Your task to perform on an android device: turn on improve location accuracy Image 0: 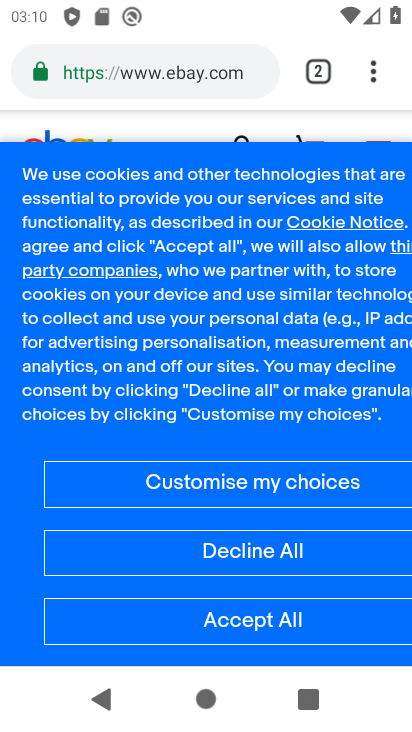
Step 0: press home button
Your task to perform on an android device: turn on improve location accuracy Image 1: 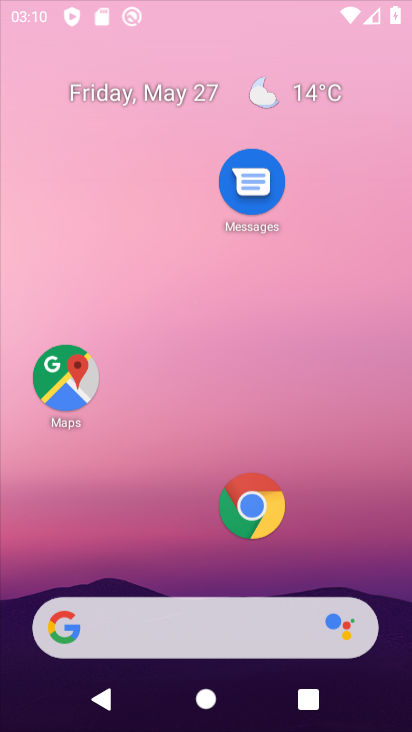
Step 1: drag from (180, 606) to (189, 175)
Your task to perform on an android device: turn on improve location accuracy Image 2: 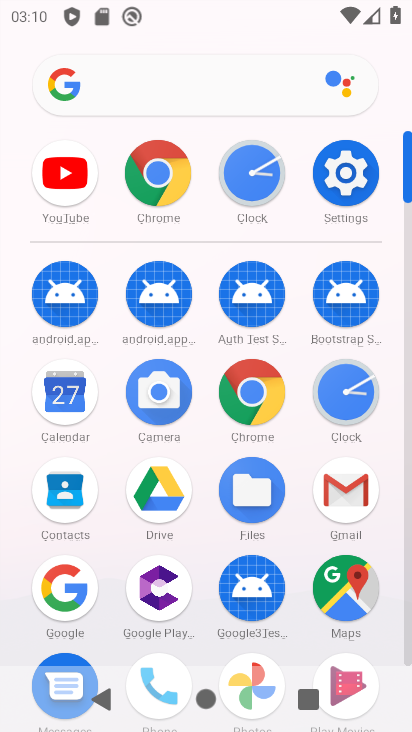
Step 2: click (356, 163)
Your task to perform on an android device: turn on improve location accuracy Image 3: 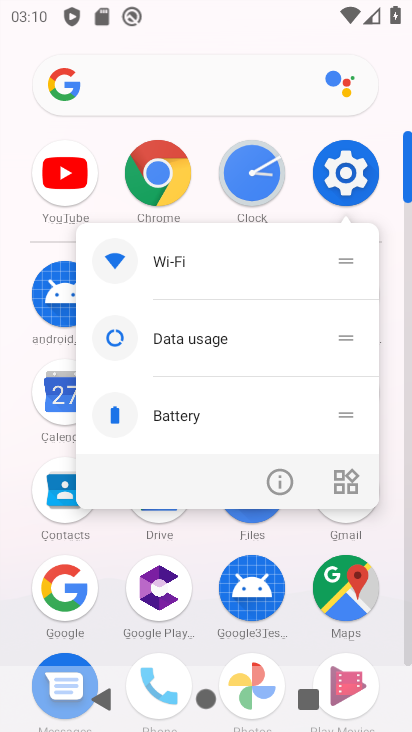
Step 3: click (280, 478)
Your task to perform on an android device: turn on improve location accuracy Image 4: 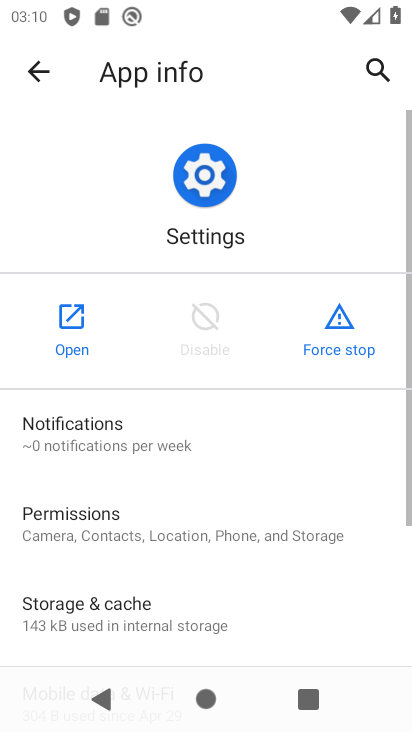
Step 4: click (101, 324)
Your task to perform on an android device: turn on improve location accuracy Image 5: 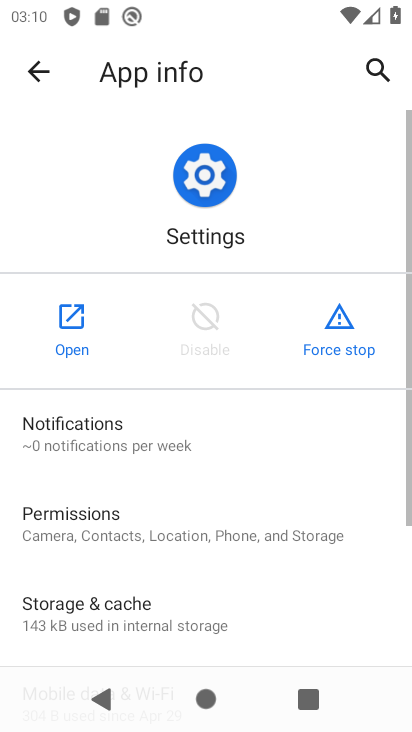
Step 5: click (95, 324)
Your task to perform on an android device: turn on improve location accuracy Image 6: 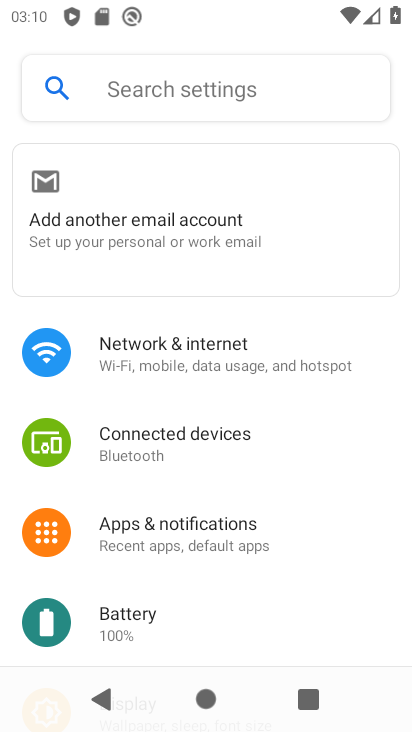
Step 6: drag from (247, 573) to (257, 249)
Your task to perform on an android device: turn on improve location accuracy Image 7: 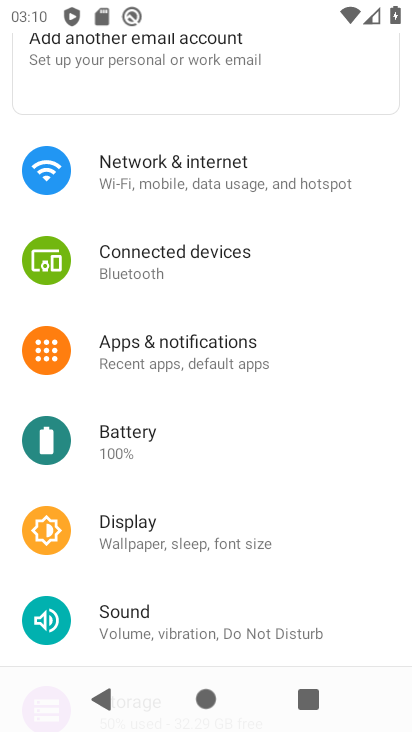
Step 7: drag from (199, 552) to (190, 220)
Your task to perform on an android device: turn on improve location accuracy Image 8: 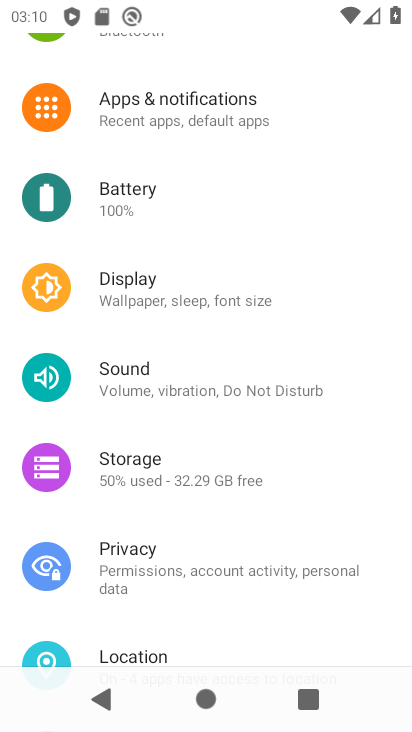
Step 8: click (146, 632)
Your task to perform on an android device: turn on improve location accuracy Image 9: 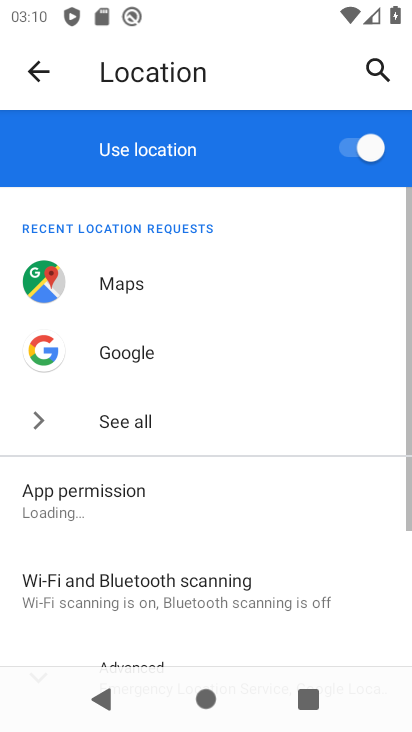
Step 9: drag from (195, 467) to (216, 281)
Your task to perform on an android device: turn on improve location accuracy Image 10: 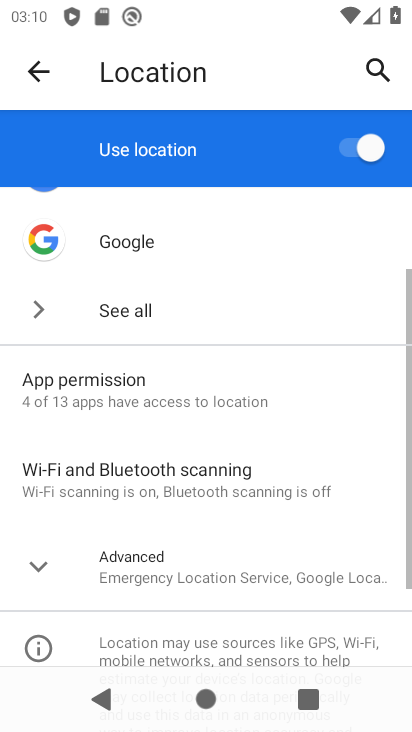
Step 10: click (118, 550)
Your task to perform on an android device: turn on improve location accuracy Image 11: 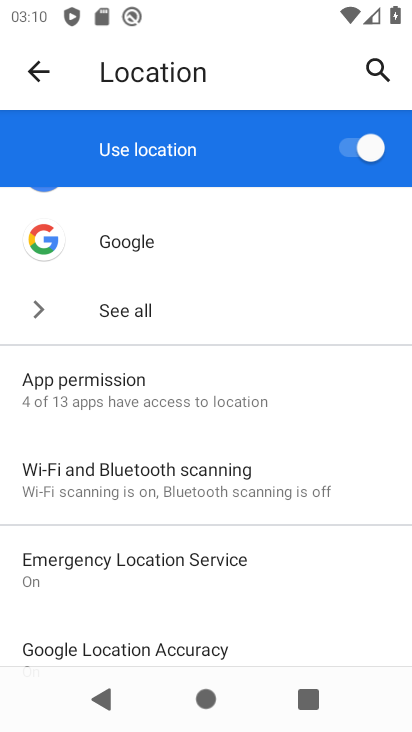
Step 11: drag from (240, 600) to (316, 174)
Your task to perform on an android device: turn on improve location accuracy Image 12: 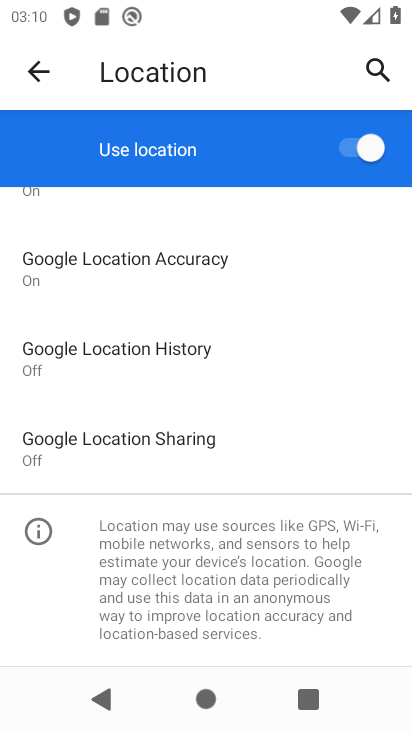
Step 12: click (192, 264)
Your task to perform on an android device: turn on improve location accuracy Image 13: 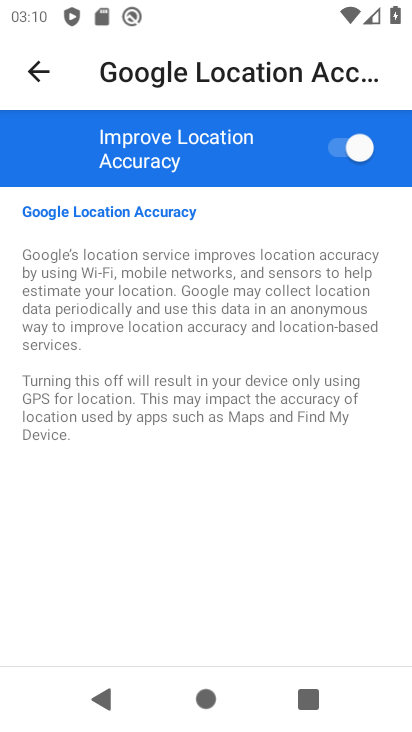
Step 13: task complete